Your task to perform on an android device: refresh tabs in the chrome app Image 0: 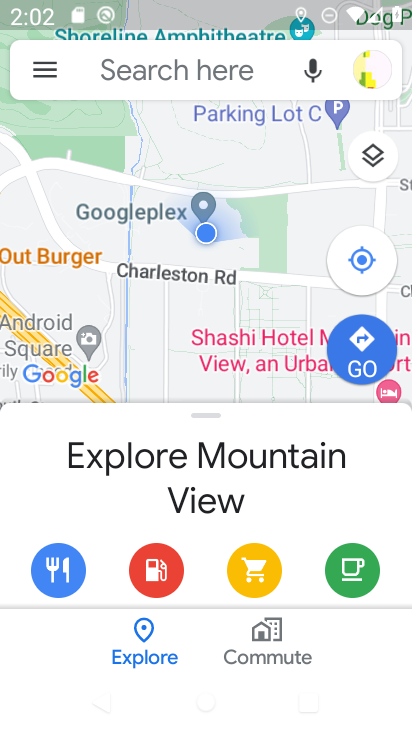
Step 0: press back button
Your task to perform on an android device: refresh tabs in the chrome app Image 1: 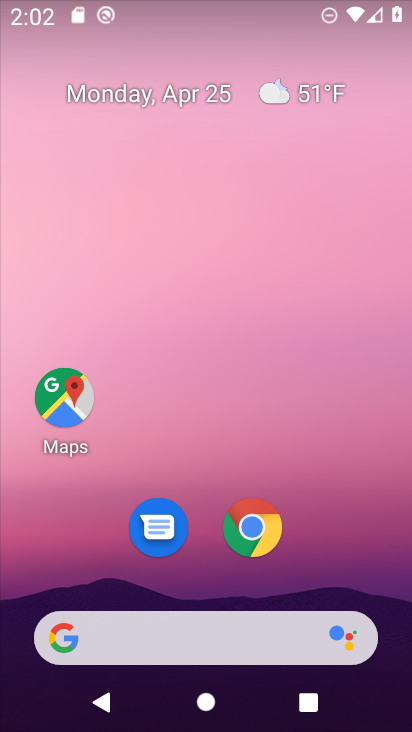
Step 1: drag from (339, 565) to (303, 16)
Your task to perform on an android device: refresh tabs in the chrome app Image 2: 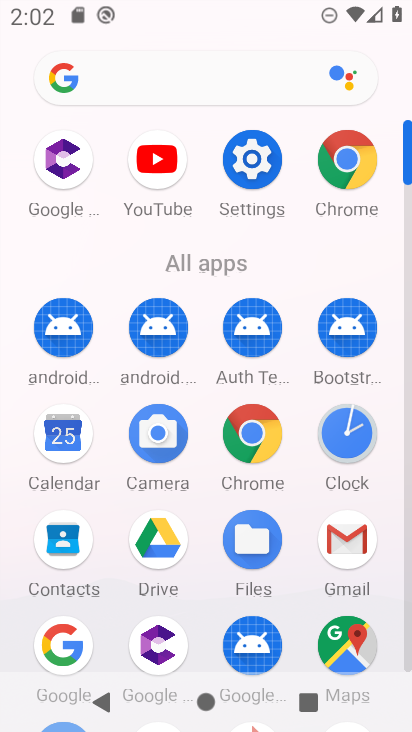
Step 2: drag from (9, 564) to (5, 260)
Your task to perform on an android device: refresh tabs in the chrome app Image 3: 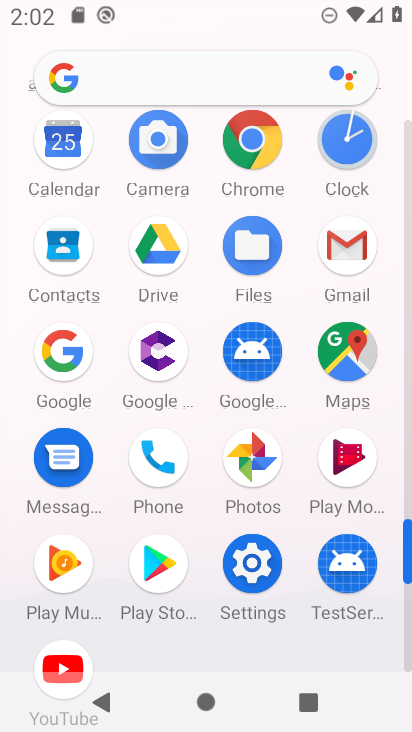
Step 3: click (257, 136)
Your task to perform on an android device: refresh tabs in the chrome app Image 4: 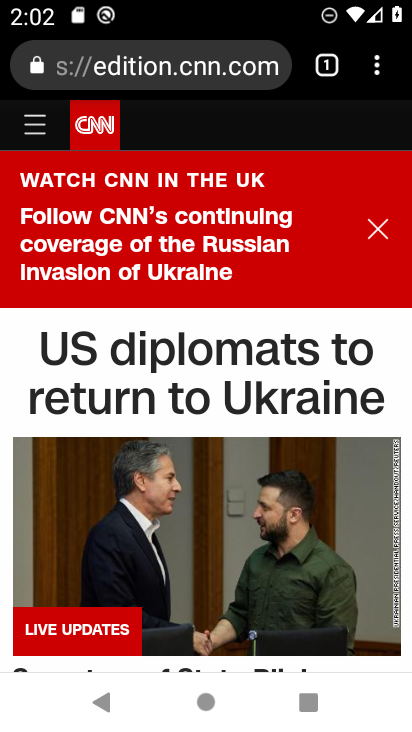
Step 4: click (375, 66)
Your task to perform on an android device: refresh tabs in the chrome app Image 5: 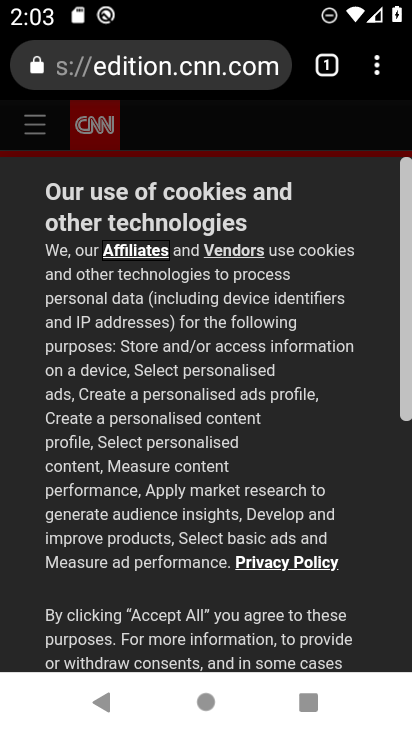
Step 5: task complete